Your task to perform on an android device: check out phone information Image 0: 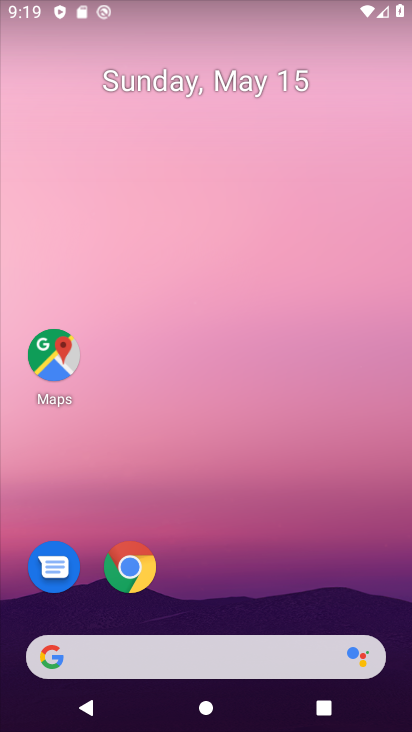
Step 0: drag from (301, 589) to (253, 140)
Your task to perform on an android device: check out phone information Image 1: 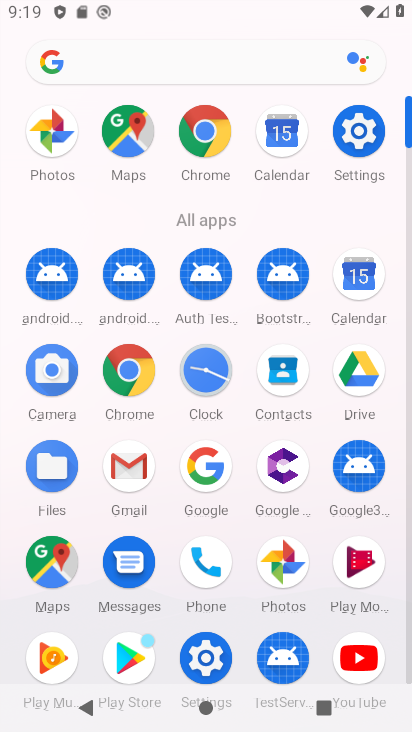
Step 1: click (202, 660)
Your task to perform on an android device: check out phone information Image 2: 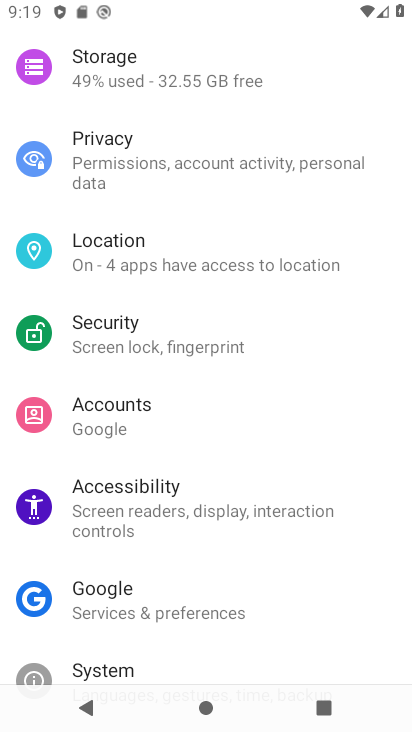
Step 2: drag from (262, 645) to (196, 4)
Your task to perform on an android device: check out phone information Image 3: 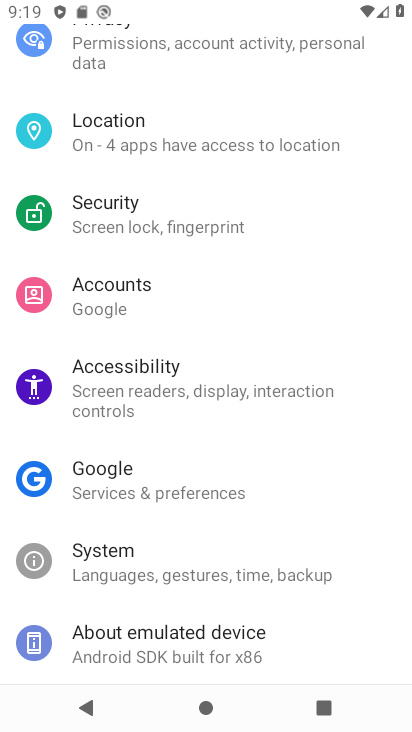
Step 3: click (186, 660)
Your task to perform on an android device: check out phone information Image 4: 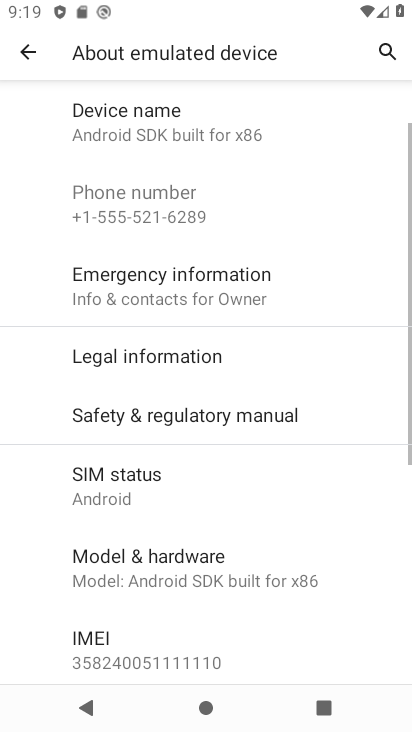
Step 4: task complete